Your task to perform on an android device: set default search engine in the chrome app Image 0: 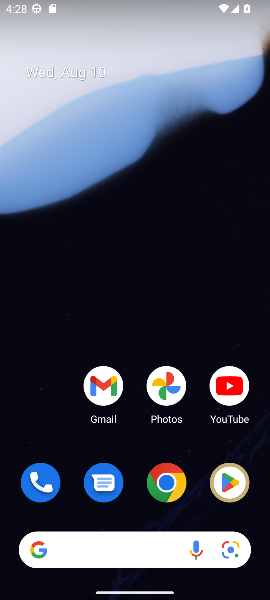
Step 0: click (169, 477)
Your task to perform on an android device: set default search engine in the chrome app Image 1: 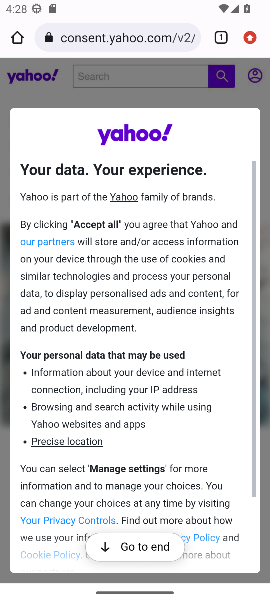
Step 1: click (249, 39)
Your task to perform on an android device: set default search engine in the chrome app Image 2: 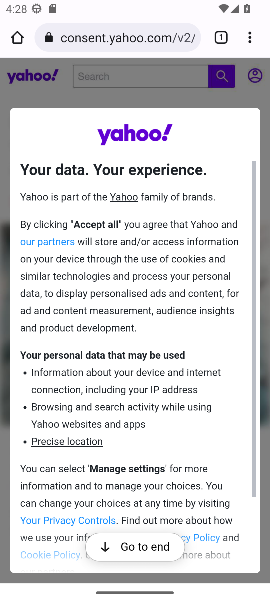
Step 2: click (168, 543)
Your task to perform on an android device: set default search engine in the chrome app Image 3: 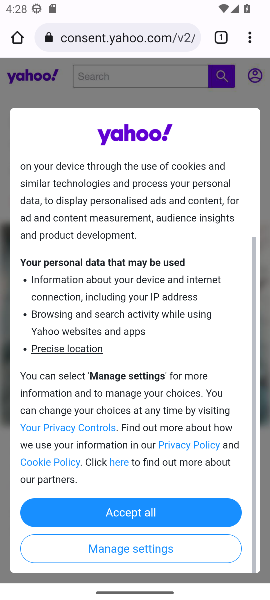
Step 3: click (250, 39)
Your task to perform on an android device: set default search engine in the chrome app Image 4: 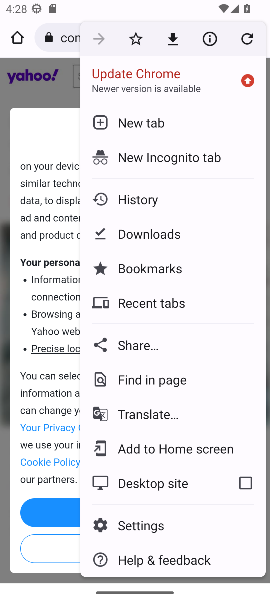
Step 4: click (140, 527)
Your task to perform on an android device: set default search engine in the chrome app Image 5: 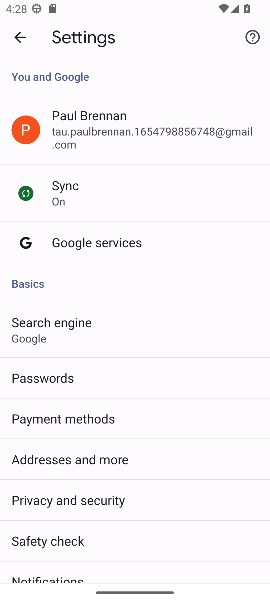
Step 5: click (100, 333)
Your task to perform on an android device: set default search engine in the chrome app Image 6: 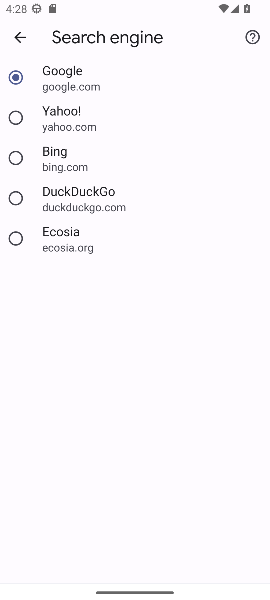
Step 6: task complete